Your task to perform on an android device: empty trash in google photos Image 0: 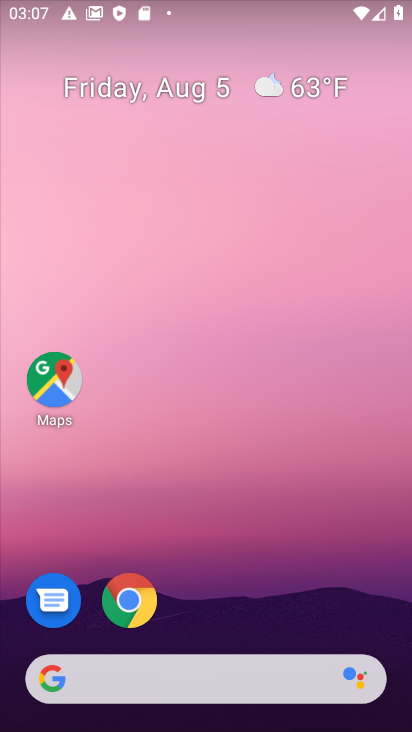
Step 0: drag from (175, 678) to (253, 92)
Your task to perform on an android device: empty trash in google photos Image 1: 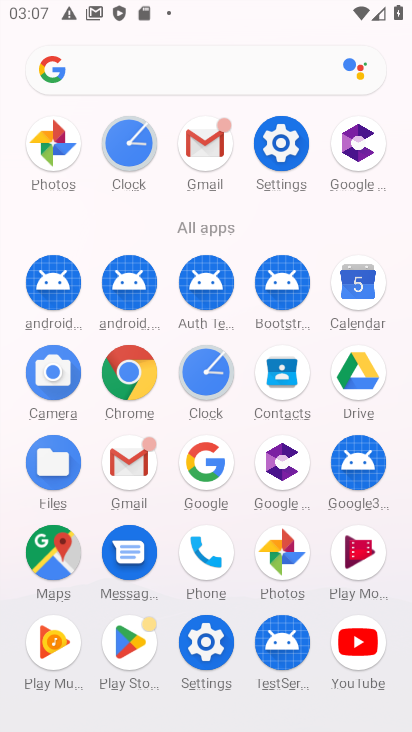
Step 1: click (53, 142)
Your task to perform on an android device: empty trash in google photos Image 2: 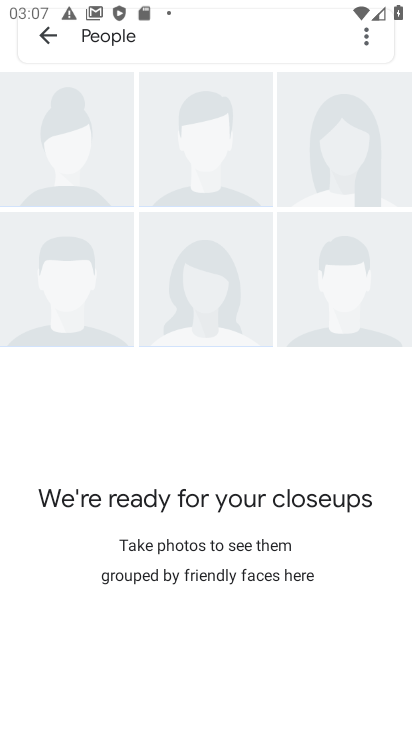
Step 2: press back button
Your task to perform on an android device: empty trash in google photos Image 3: 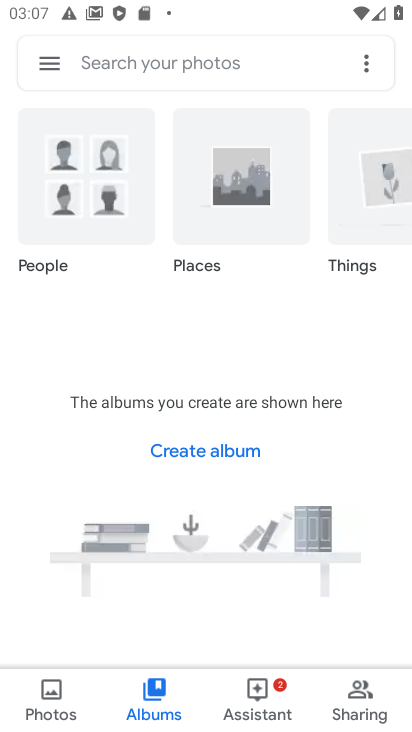
Step 3: click (45, 63)
Your task to perform on an android device: empty trash in google photos Image 4: 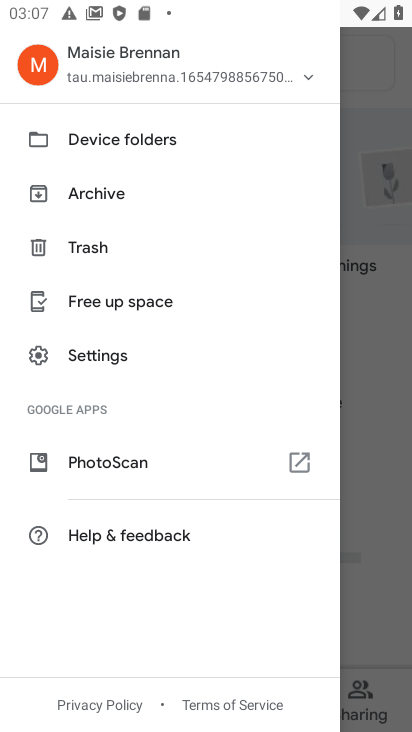
Step 4: click (97, 248)
Your task to perform on an android device: empty trash in google photos Image 5: 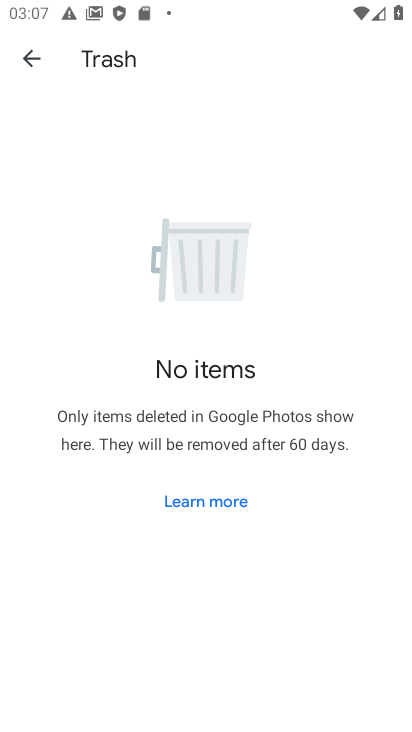
Step 5: task complete